Your task to perform on an android device: set the timer Image 0: 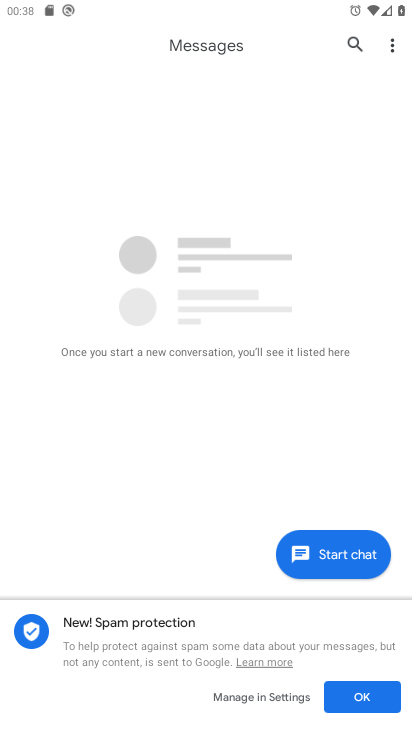
Step 0: press home button
Your task to perform on an android device: set the timer Image 1: 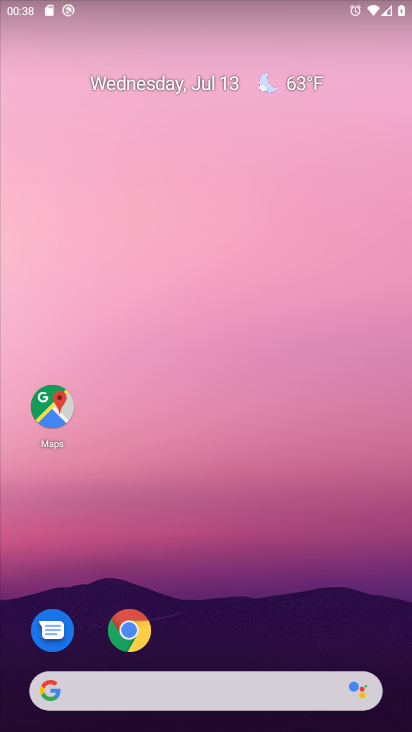
Step 1: drag from (187, 699) to (202, 374)
Your task to perform on an android device: set the timer Image 2: 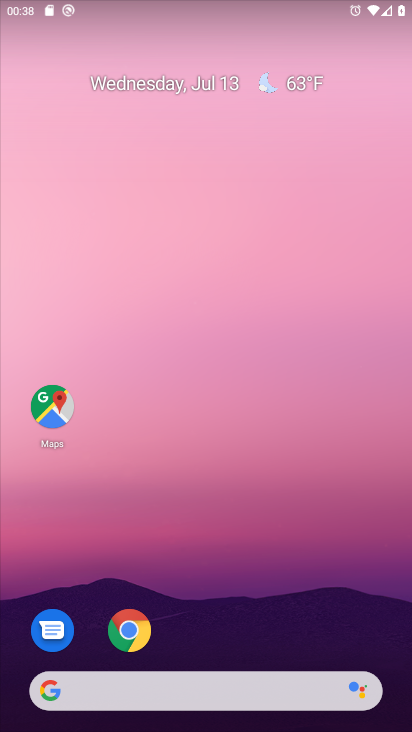
Step 2: drag from (199, 678) to (174, 287)
Your task to perform on an android device: set the timer Image 3: 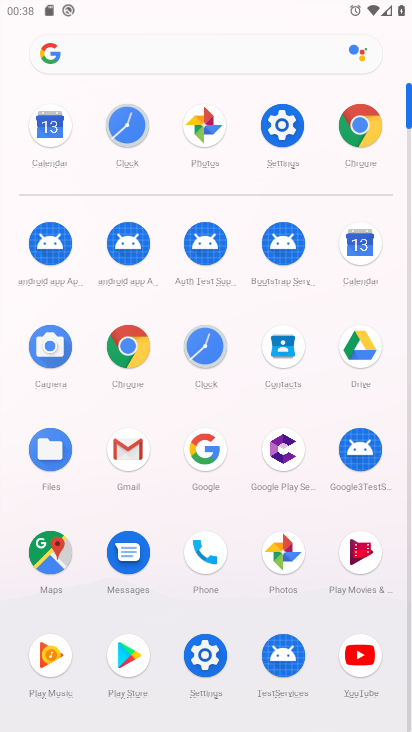
Step 3: click (201, 357)
Your task to perform on an android device: set the timer Image 4: 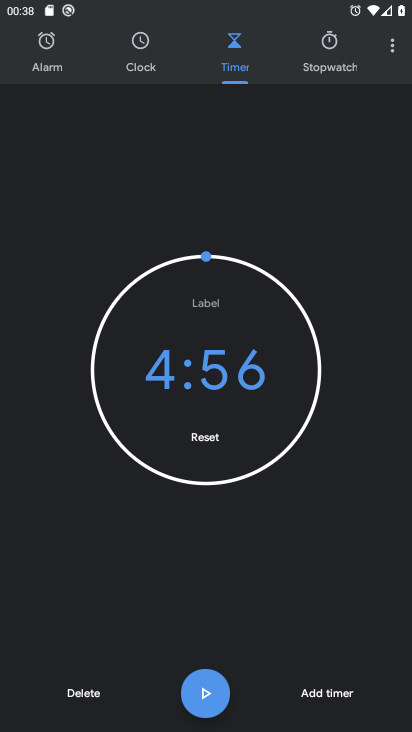
Step 4: click (320, 694)
Your task to perform on an android device: set the timer Image 5: 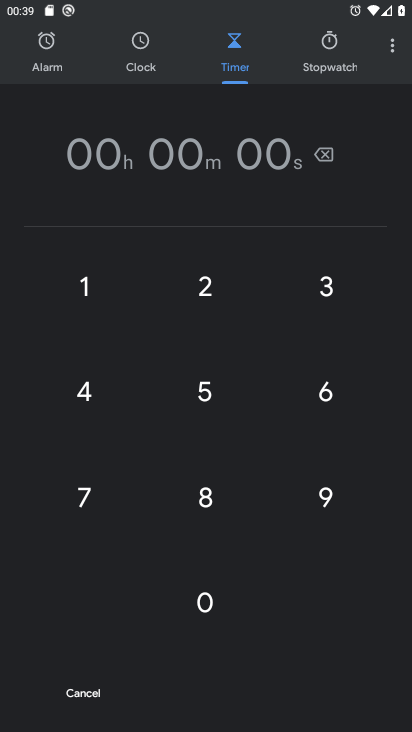
Step 5: click (207, 502)
Your task to perform on an android device: set the timer Image 6: 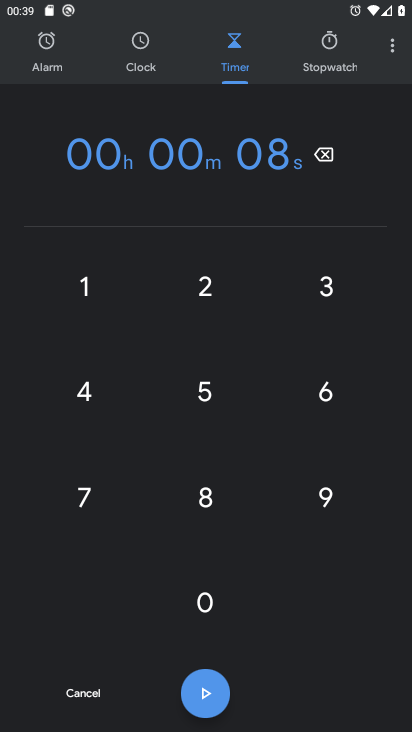
Step 6: click (201, 401)
Your task to perform on an android device: set the timer Image 7: 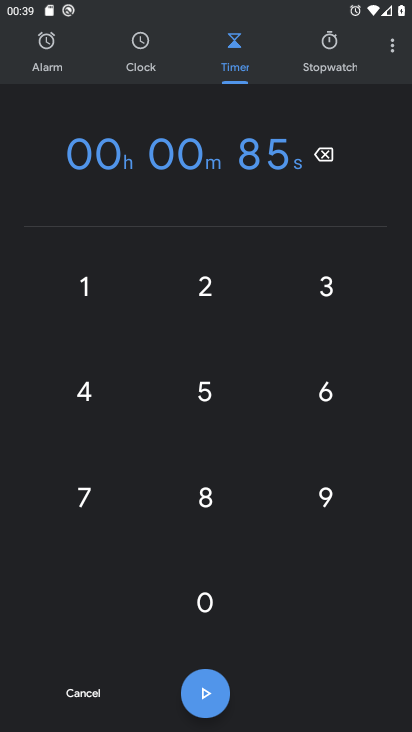
Step 7: click (339, 375)
Your task to perform on an android device: set the timer Image 8: 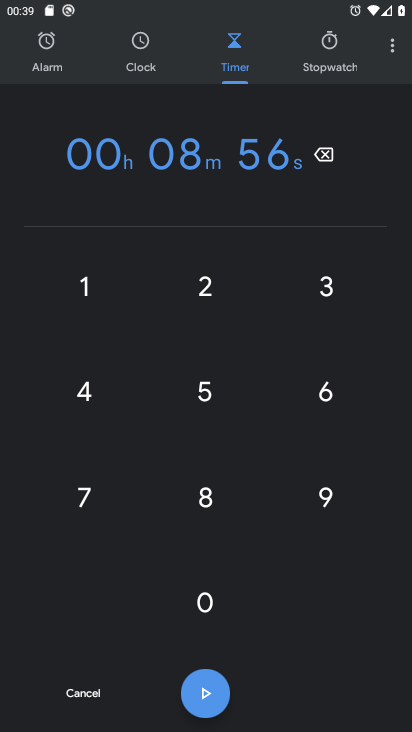
Step 8: click (193, 705)
Your task to perform on an android device: set the timer Image 9: 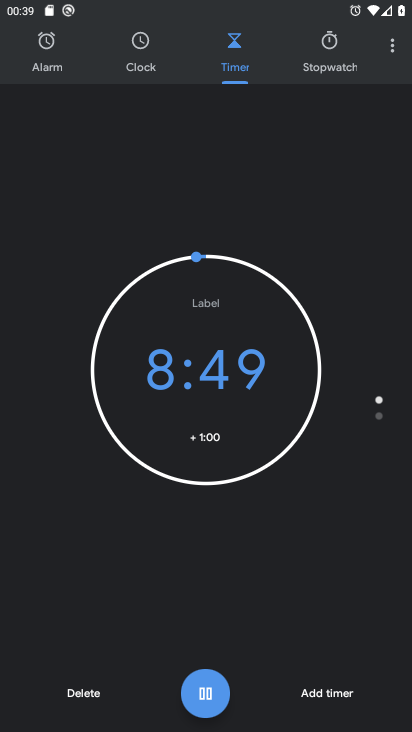
Step 9: task complete